Your task to perform on an android device: turn on sleep mode Image 0: 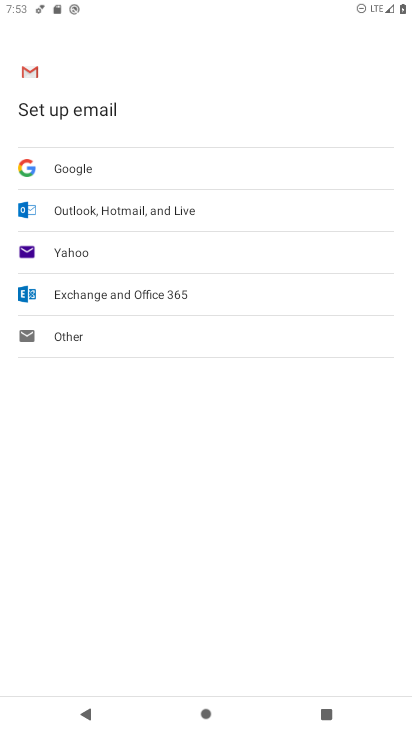
Step 0: press home button
Your task to perform on an android device: turn on sleep mode Image 1: 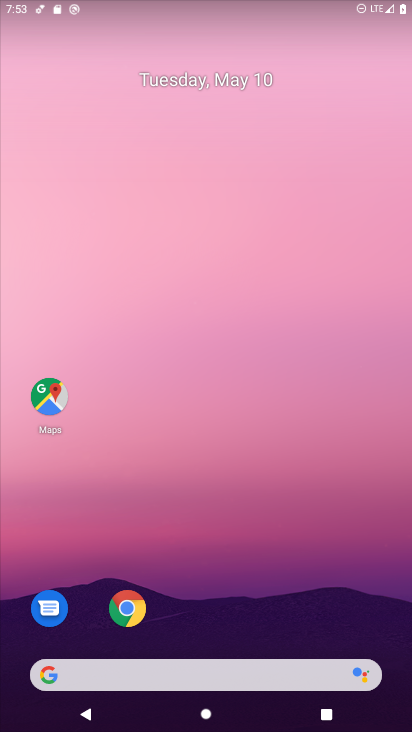
Step 1: drag from (245, 528) to (257, 243)
Your task to perform on an android device: turn on sleep mode Image 2: 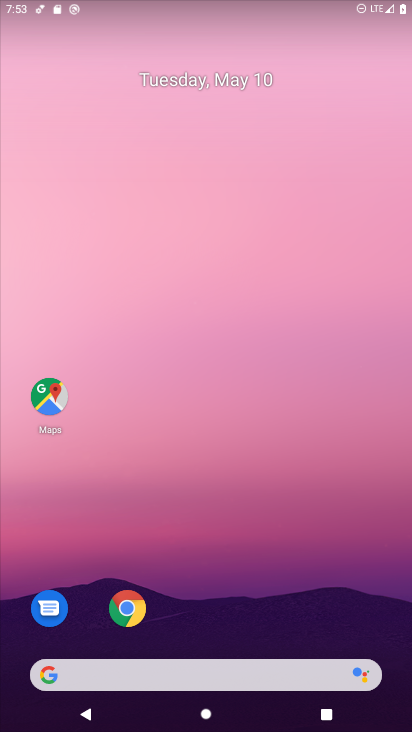
Step 2: drag from (255, 424) to (251, 264)
Your task to perform on an android device: turn on sleep mode Image 3: 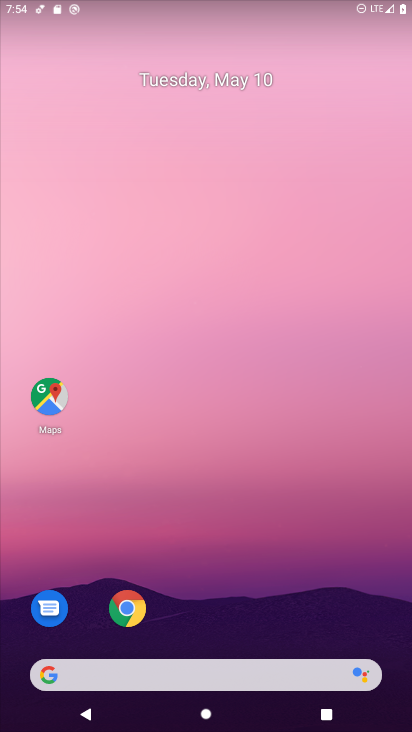
Step 3: drag from (251, 555) to (286, 301)
Your task to perform on an android device: turn on sleep mode Image 4: 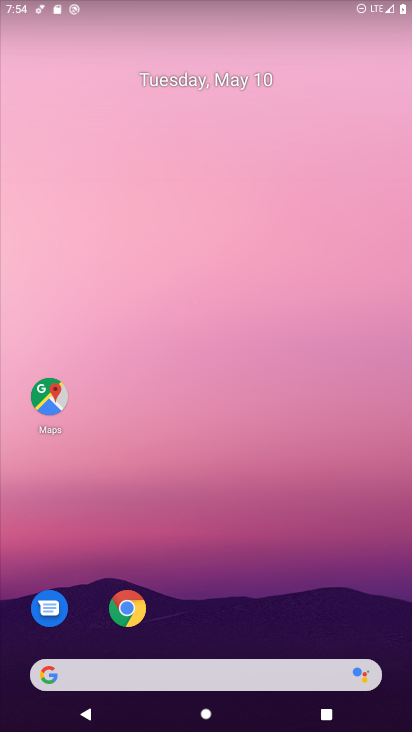
Step 4: drag from (251, 484) to (279, 187)
Your task to perform on an android device: turn on sleep mode Image 5: 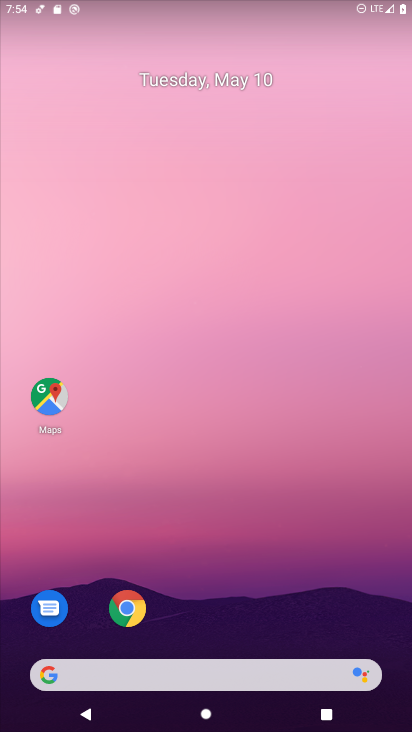
Step 5: drag from (241, 625) to (258, 67)
Your task to perform on an android device: turn on sleep mode Image 6: 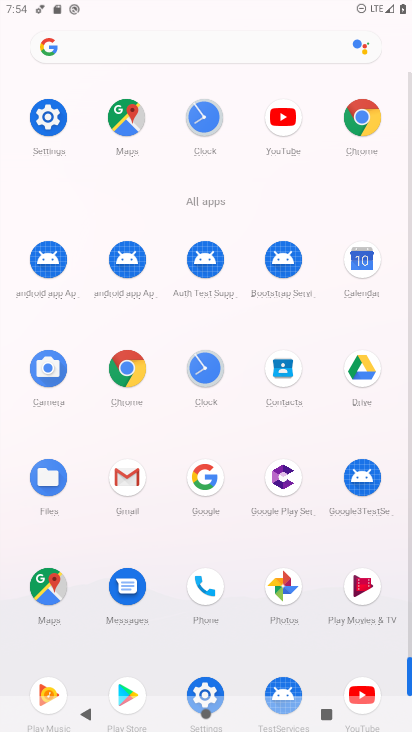
Step 6: click (50, 120)
Your task to perform on an android device: turn on sleep mode Image 7: 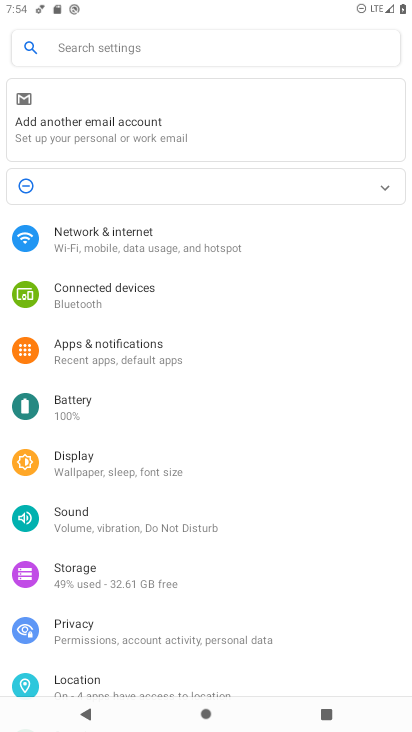
Step 7: task complete